Your task to perform on an android device: turn on the 24-hour format for clock Image 0: 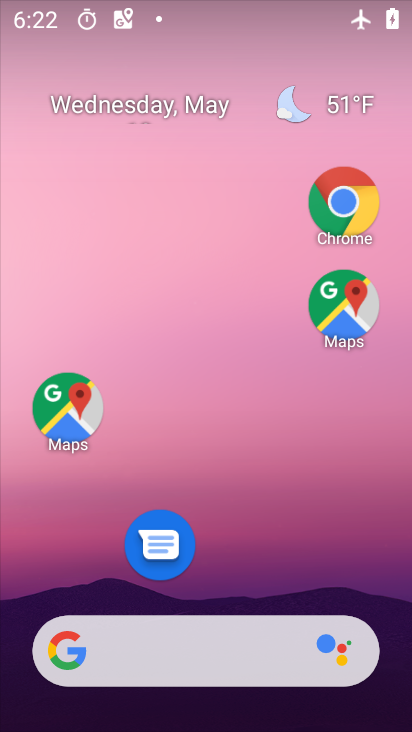
Step 0: click (304, 150)
Your task to perform on an android device: turn on the 24-hour format for clock Image 1: 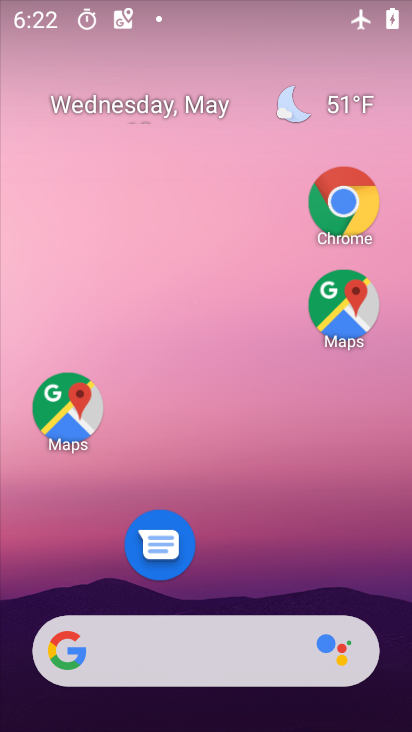
Step 1: drag from (276, 440) to (288, 108)
Your task to perform on an android device: turn on the 24-hour format for clock Image 2: 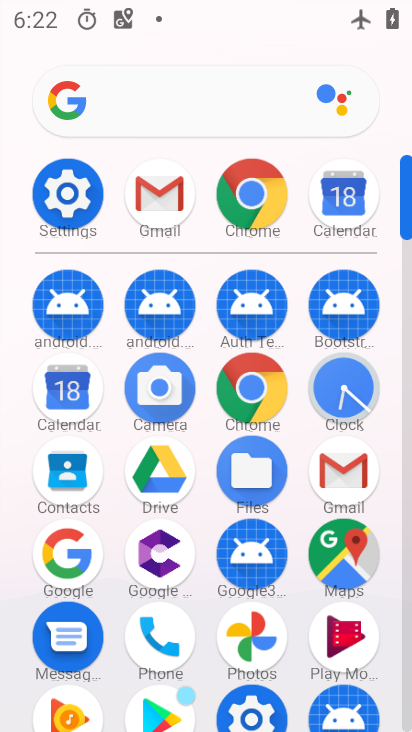
Step 2: click (346, 410)
Your task to perform on an android device: turn on the 24-hour format for clock Image 3: 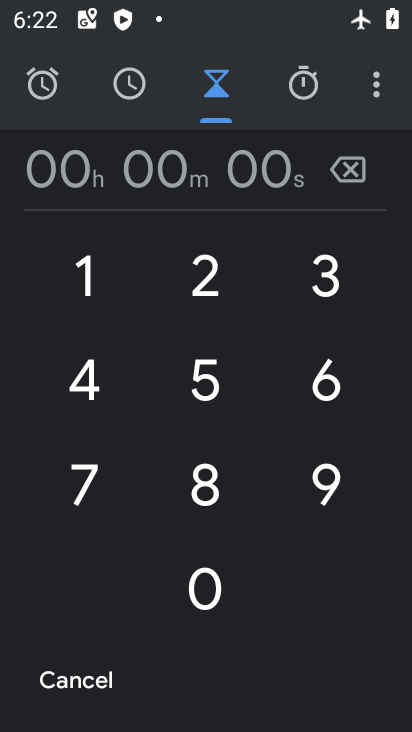
Step 3: click (382, 81)
Your task to perform on an android device: turn on the 24-hour format for clock Image 4: 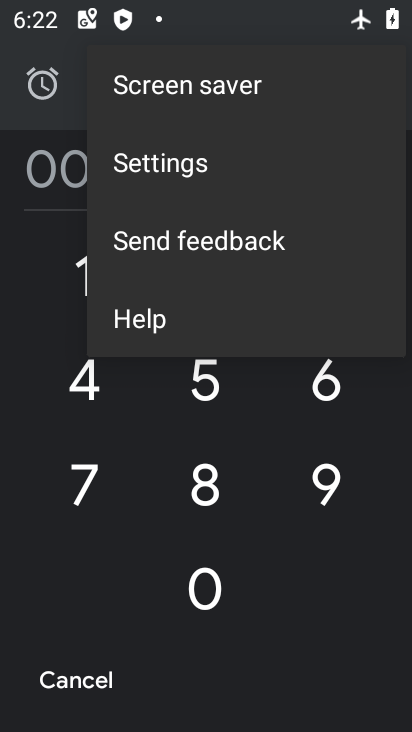
Step 4: click (185, 148)
Your task to perform on an android device: turn on the 24-hour format for clock Image 5: 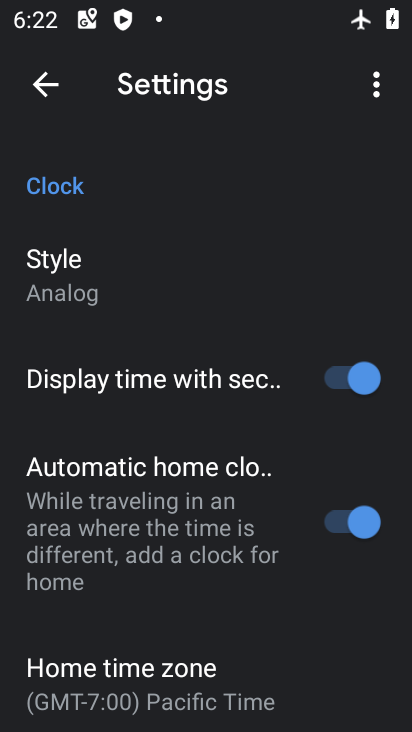
Step 5: drag from (162, 631) to (163, 340)
Your task to perform on an android device: turn on the 24-hour format for clock Image 6: 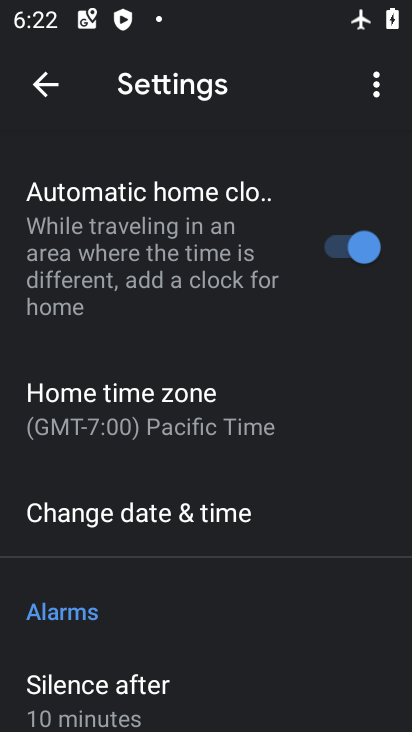
Step 6: click (123, 521)
Your task to perform on an android device: turn on the 24-hour format for clock Image 7: 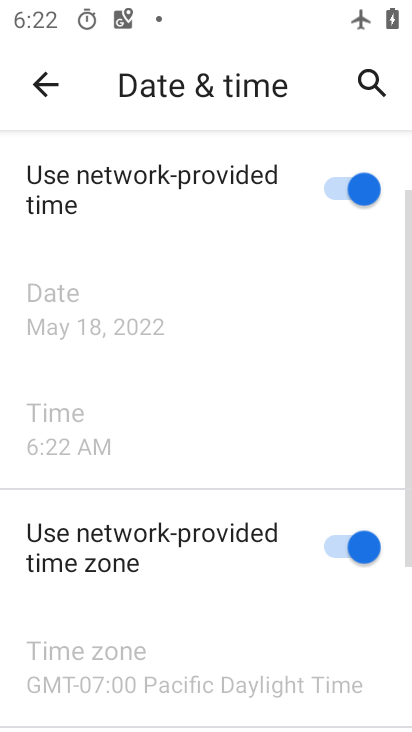
Step 7: click (223, 372)
Your task to perform on an android device: turn on the 24-hour format for clock Image 8: 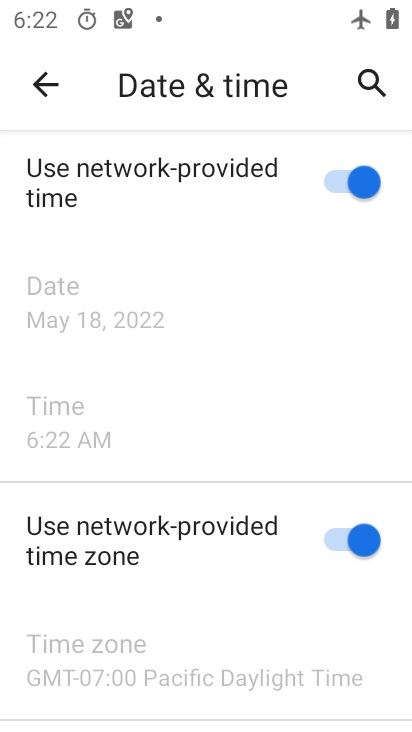
Step 8: drag from (227, 571) to (287, 331)
Your task to perform on an android device: turn on the 24-hour format for clock Image 9: 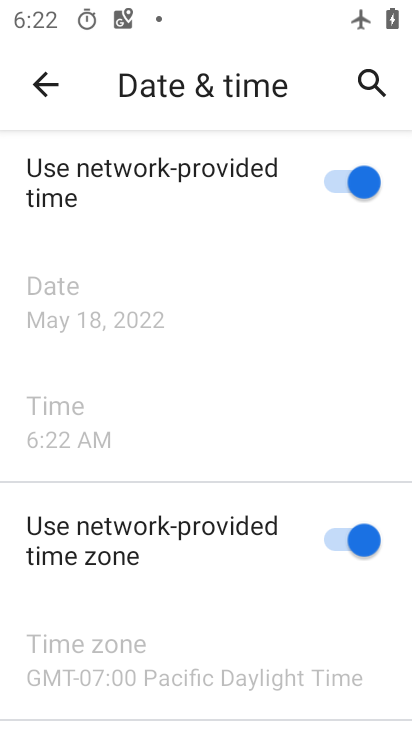
Step 9: click (179, 342)
Your task to perform on an android device: turn on the 24-hour format for clock Image 10: 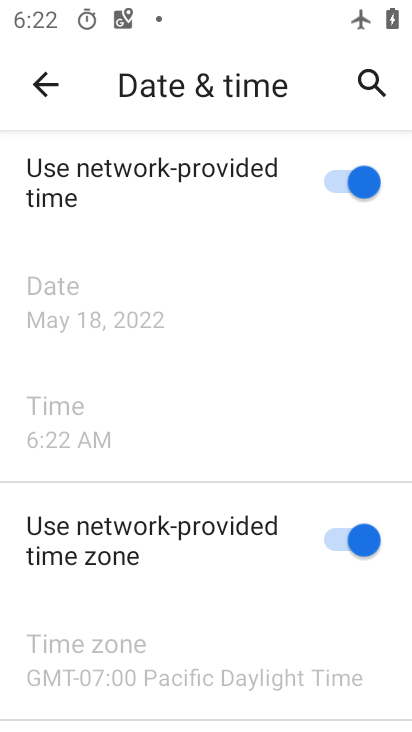
Step 10: click (190, 346)
Your task to perform on an android device: turn on the 24-hour format for clock Image 11: 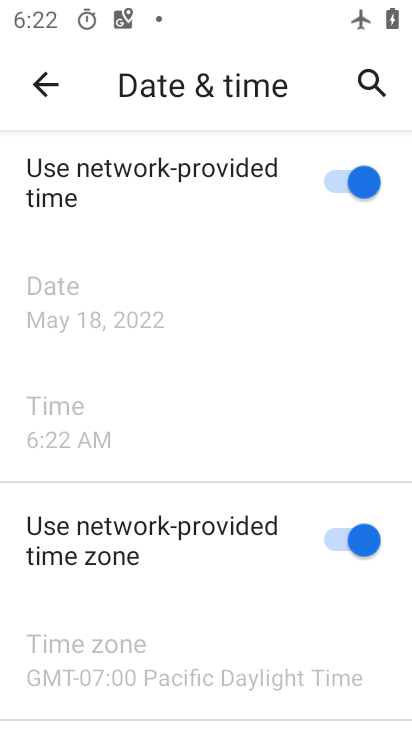
Step 11: drag from (177, 608) to (134, 289)
Your task to perform on an android device: turn on the 24-hour format for clock Image 12: 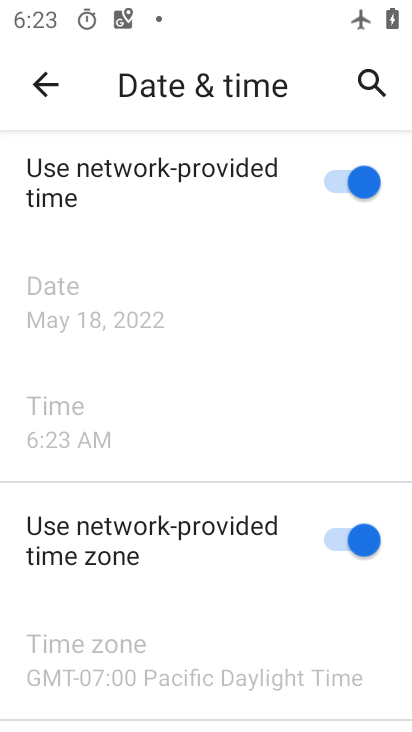
Step 12: drag from (219, 649) to (220, 334)
Your task to perform on an android device: turn on the 24-hour format for clock Image 13: 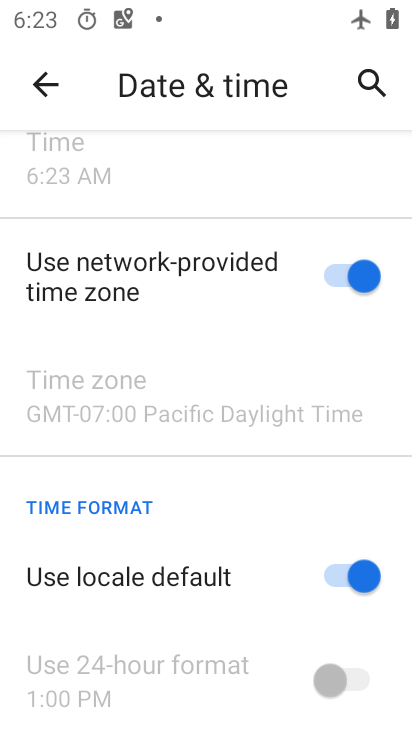
Step 13: click (341, 574)
Your task to perform on an android device: turn on the 24-hour format for clock Image 14: 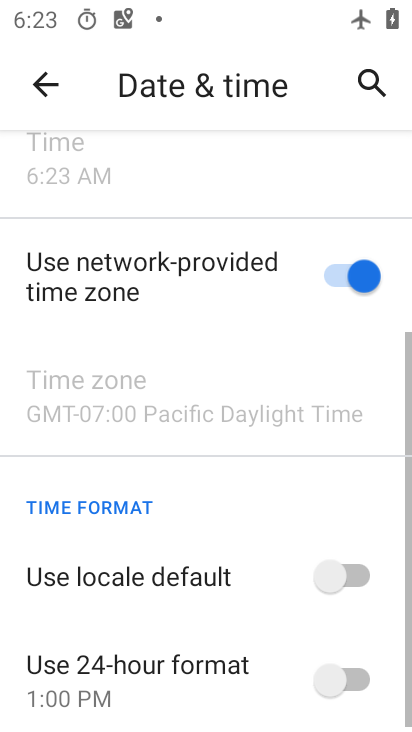
Step 14: click (348, 681)
Your task to perform on an android device: turn on the 24-hour format for clock Image 15: 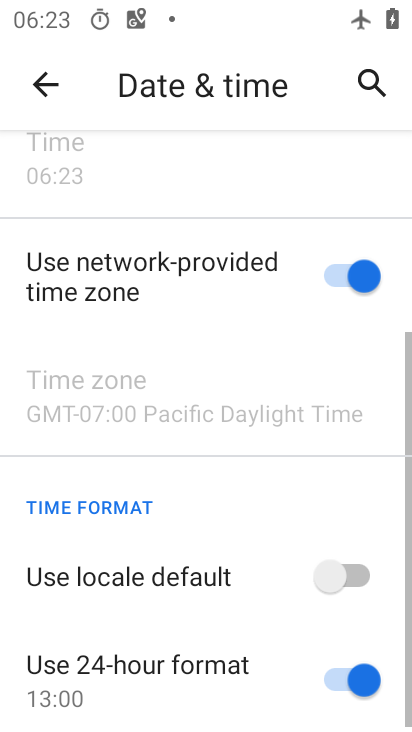
Step 15: task complete